Your task to perform on an android device: Go to Yahoo.com Image 0: 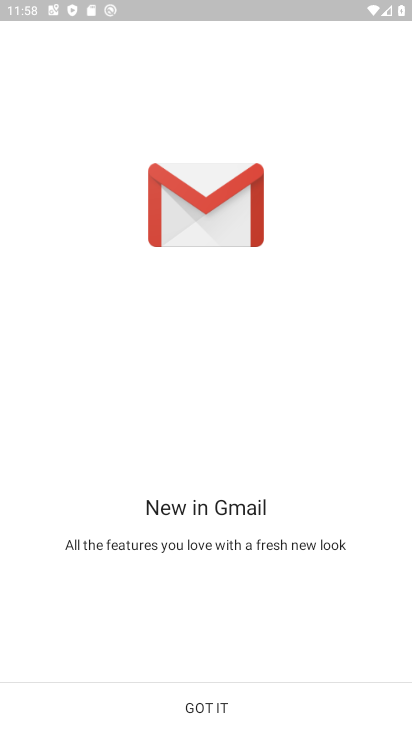
Step 0: press home button
Your task to perform on an android device: Go to Yahoo.com Image 1: 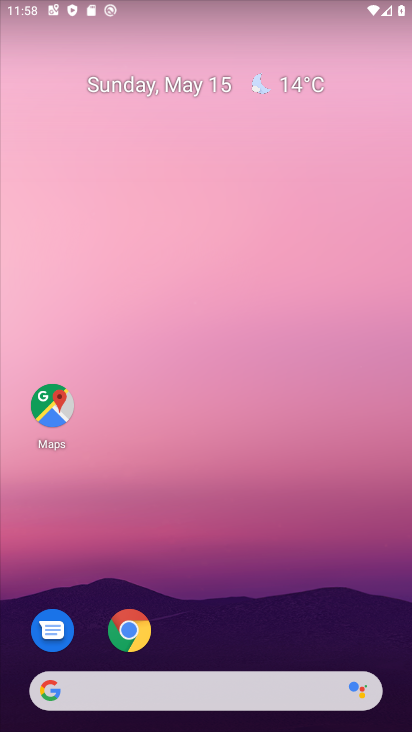
Step 1: click (138, 625)
Your task to perform on an android device: Go to Yahoo.com Image 2: 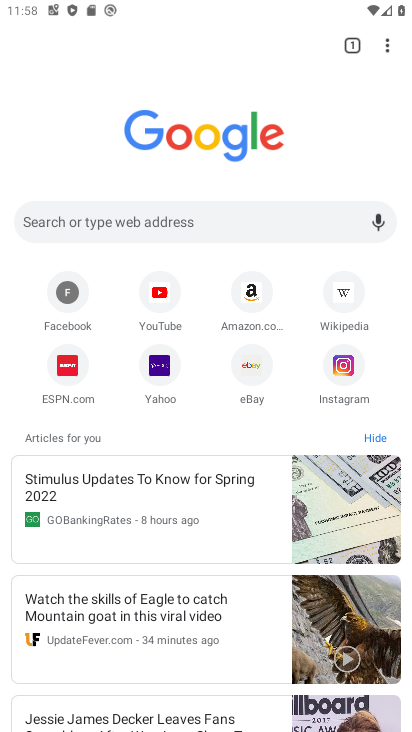
Step 2: click (162, 381)
Your task to perform on an android device: Go to Yahoo.com Image 3: 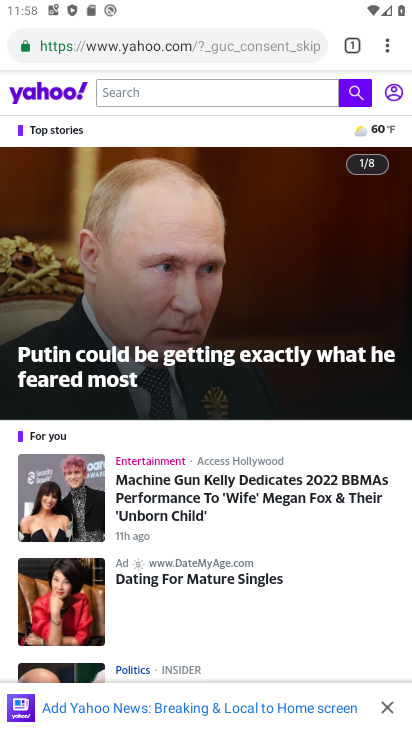
Step 3: task complete